Your task to perform on an android device: What's on my calendar today? Image 0: 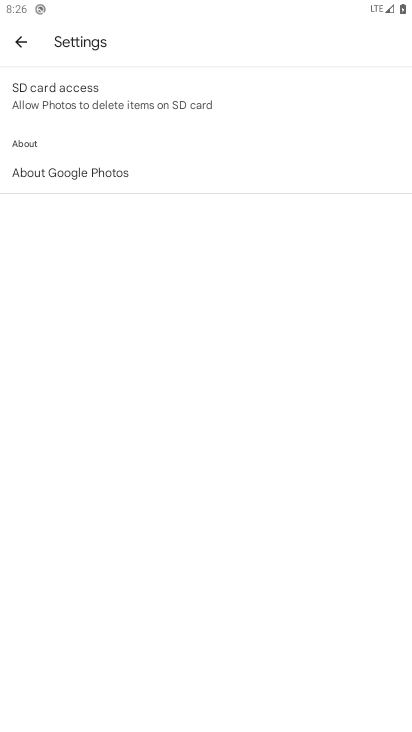
Step 0: press home button
Your task to perform on an android device: What's on my calendar today? Image 1: 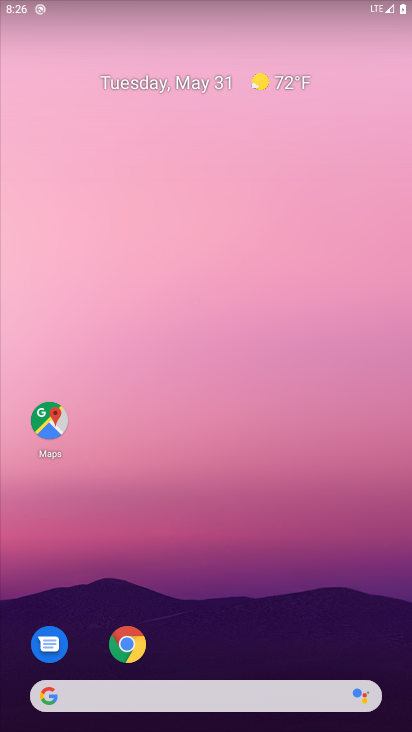
Step 1: drag from (215, 641) to (215, 100)
Your task to perform on an android device: What's on my calendar today? Image 2: 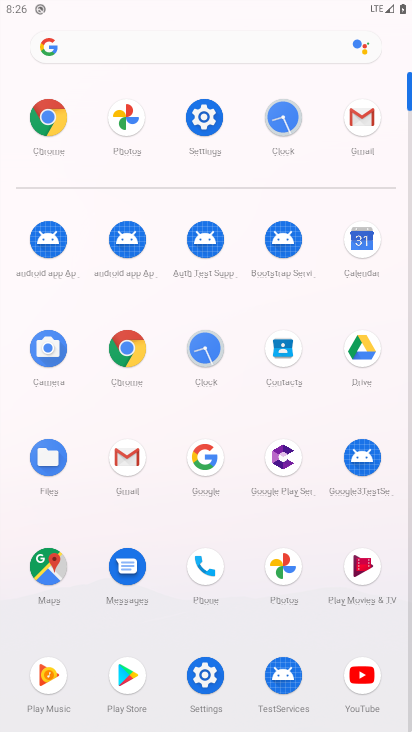
Step 2: click (359, 232)
Your task to perform on an android device: What's on my calendar today? Image 3: 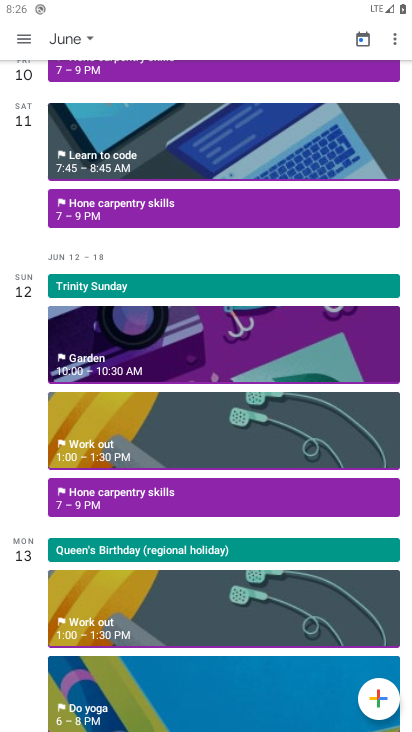
Step 3: click (67, 36)
Your task to perform on an android device: What's on my calendar today? Image 4: 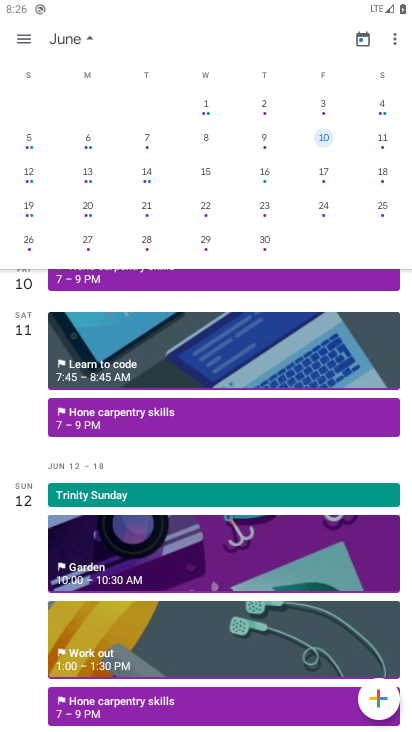
Step 4: drag from (49, 182) to (393, 173)
Your task to perform on an android device: What's on my calendar today? Image 5: 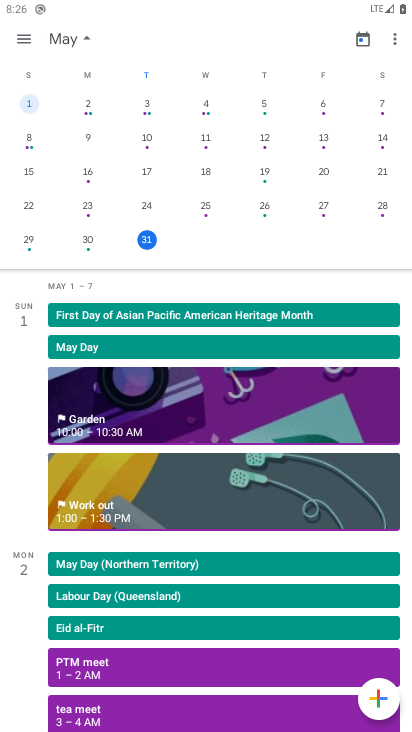
Step 5: click (139, 236)
Your task to perform on an android device: What's on my calendar today? Image 6: 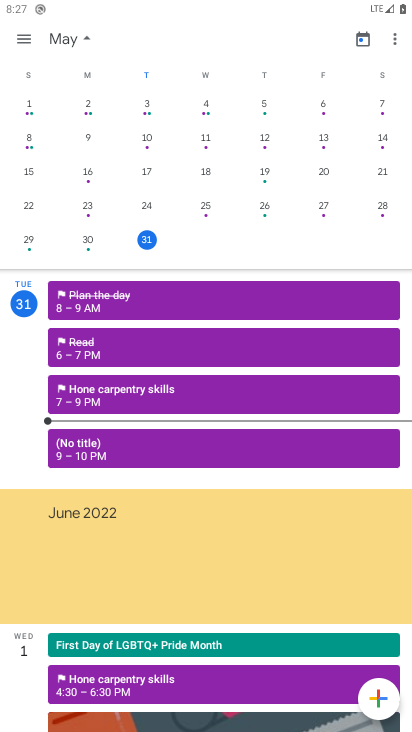
Step 6: click (150, 235)
Your task to perform on an android device: What's on my calendar today? Image 7: 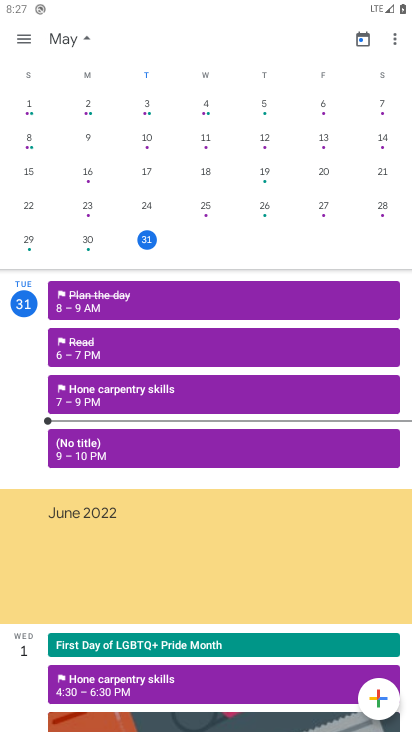
Step 7: click (80, 32)
Your task to perform on an android device: What's on my calendar today? Image 8: 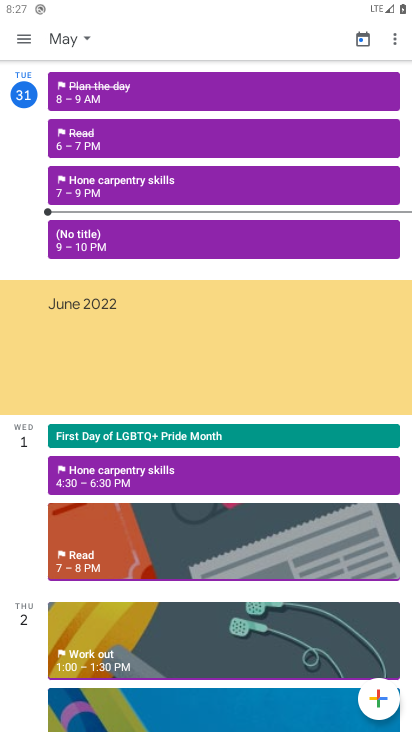
Step 8: click (30, 149)
Your task to perform on an android device: What's on my calendar today? Image 9: 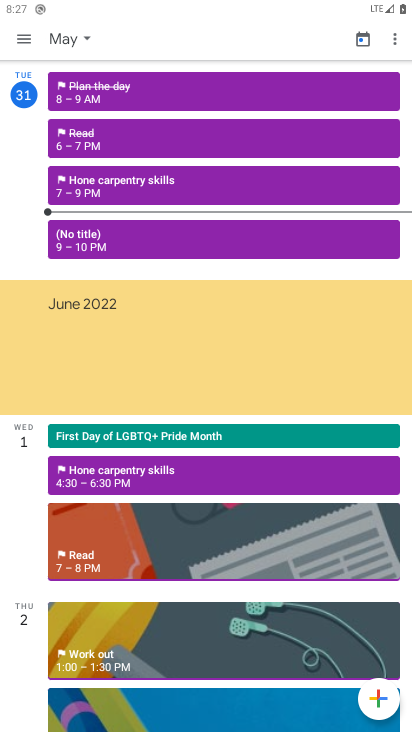
Step 9: drag from (19, 183) to (19, 114)
Your task to perform on an android device: What's on my calendar today? Image 10: 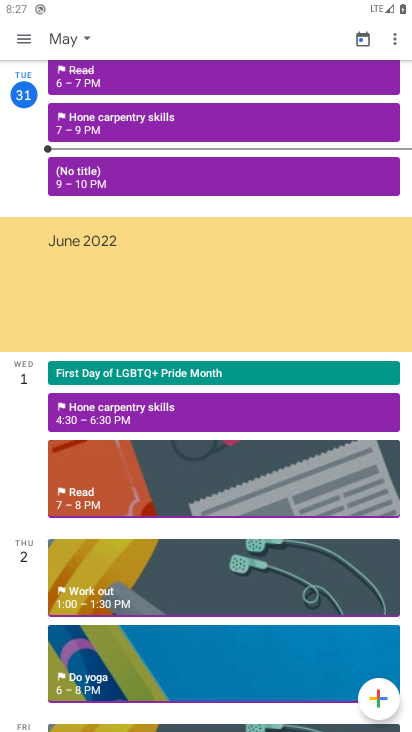
Step 10: click (24, 102)
Your task to perform on an android device: What's on my calendar today? Image 11: 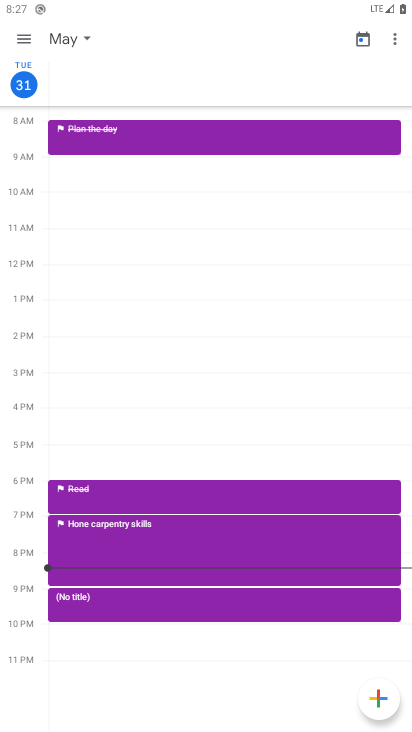
Step 11: task complete